Your task to perform on an android device: turn notification dots on Image 0: 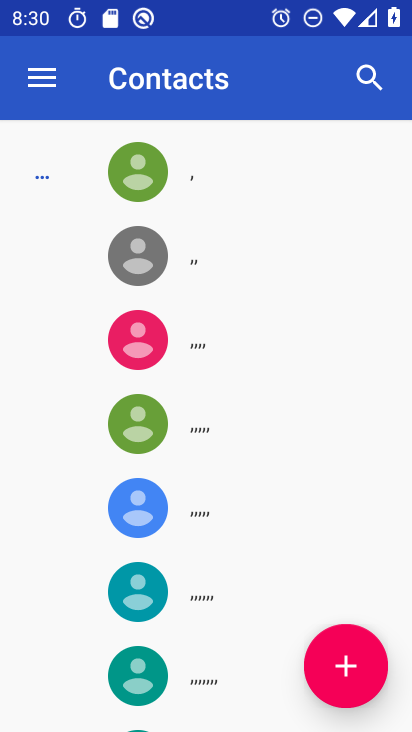
Step 0: press home button
Your task to perform on an android device: turn notification dots on Image 1: 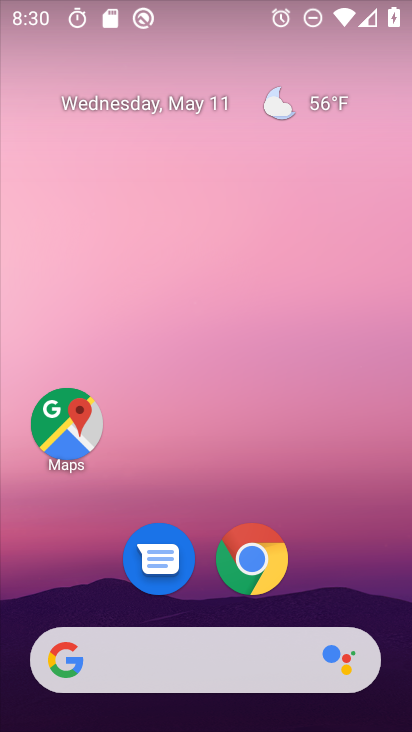
Step 1: drag from (366, 586) to (301, 8)
Your task to perform on an android device: turn notification dots on Image 2: 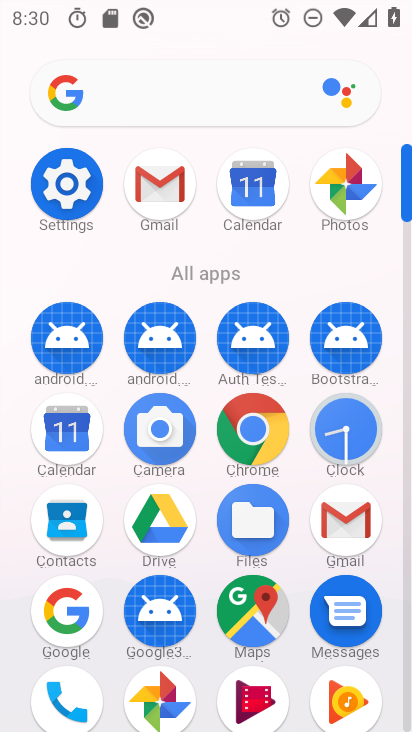
Step 2: click (90, 178)
Your task to perform on an android device: turn notification dots on Image 3: 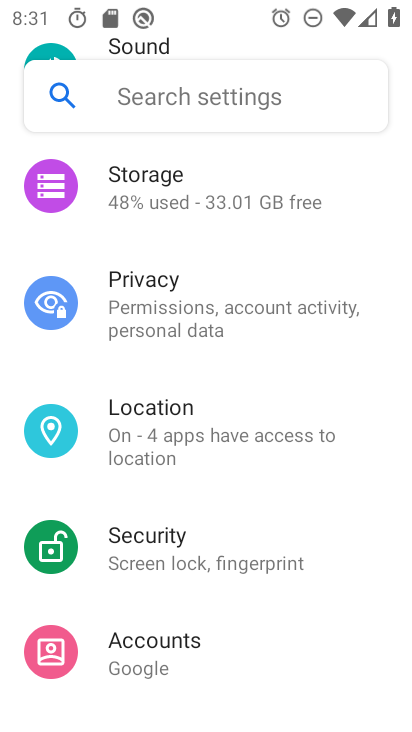
Step 3: drag from (214, 219) to (167, 643)
Your task to perform on an android device: turn notification dots on Image 4: 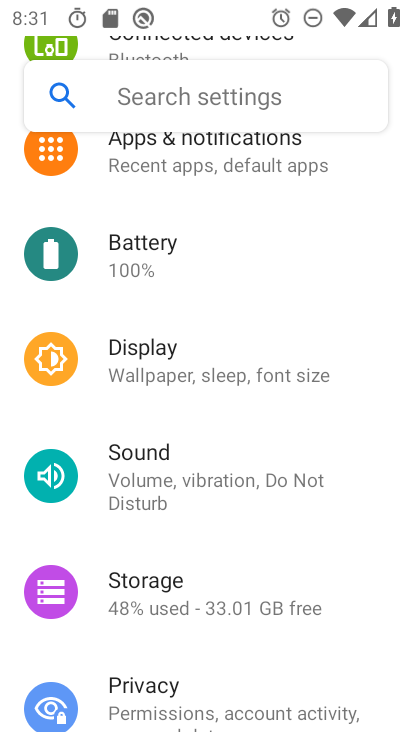
Step 4: click (149, 159)
Your task to perform on an android device: turn notification dots on Image 5: 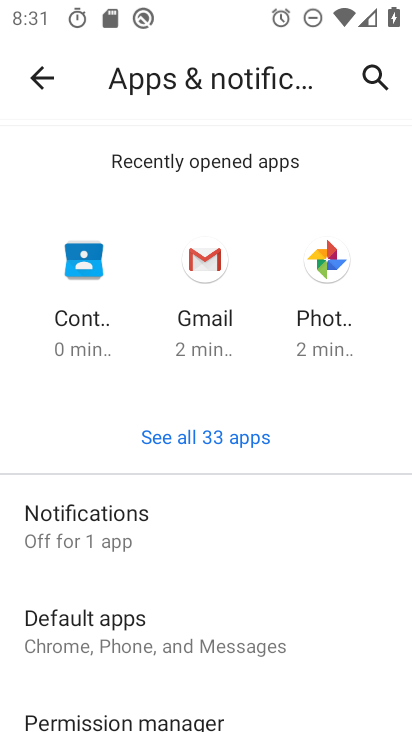
Step 5: click (77, 535)
Your task to perform on an android device: turn notification dots on Image 6: 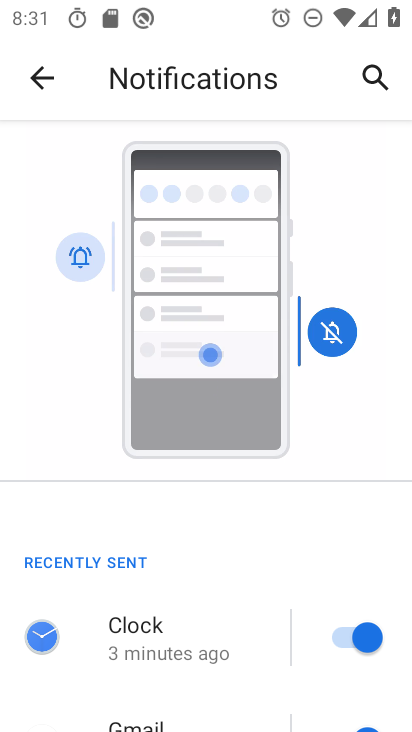
Step 6: drag from (243, 552) to (395, 41)
Your task to perform on an android device: turn notification dots on Image 7: 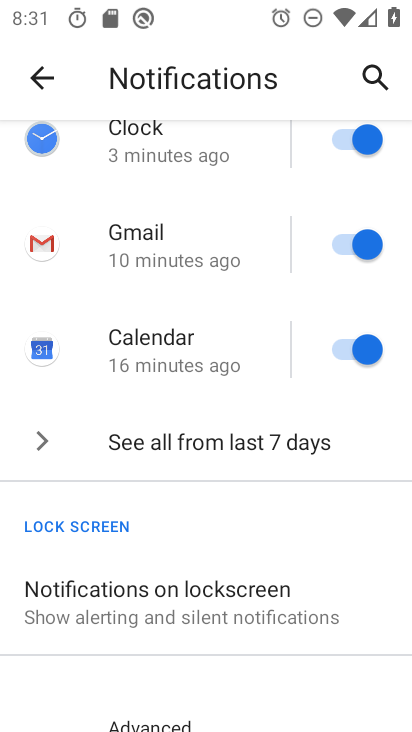
Step 7: drag from (226, 590) to (298, 284)
Your task to perform on an android device: turn notification dots on Image 8: 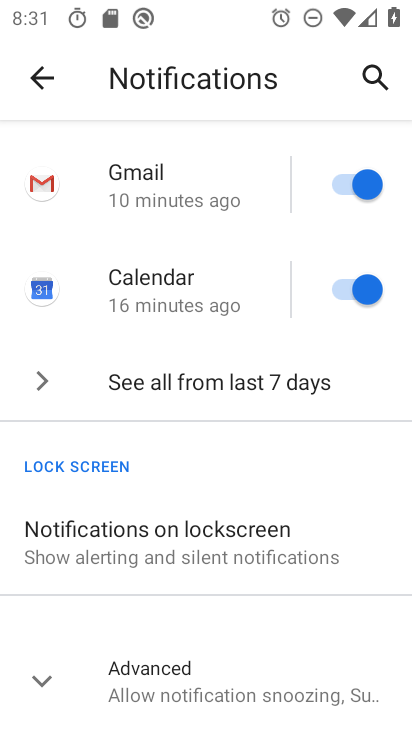
Step 8: click (147, 667)
Your task to perform on an android device: turn notification dots on Image 9: 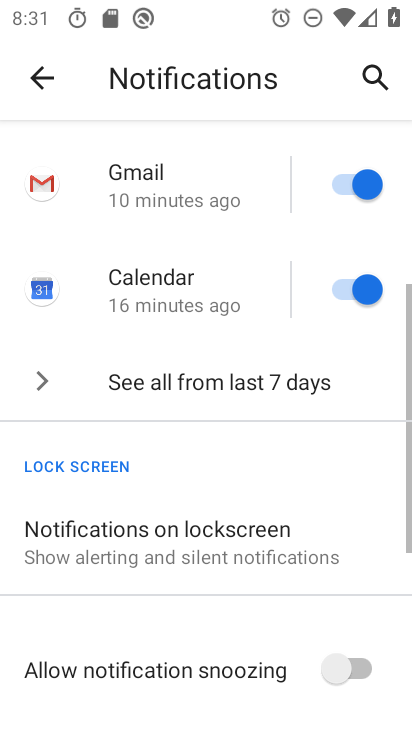
Step 9: task complete